Your task to perform on an android device: turn off sleep mode Image 0: 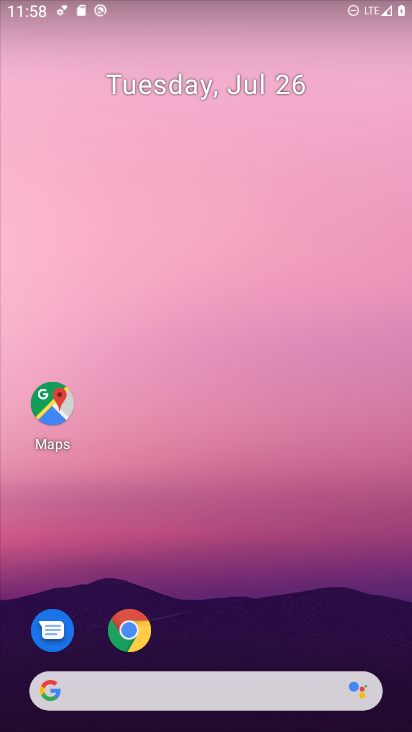
Step 0: drag from (379, 641) to (336, 255)
Your task to perform on an android device: turn off sleep mode Image 1: 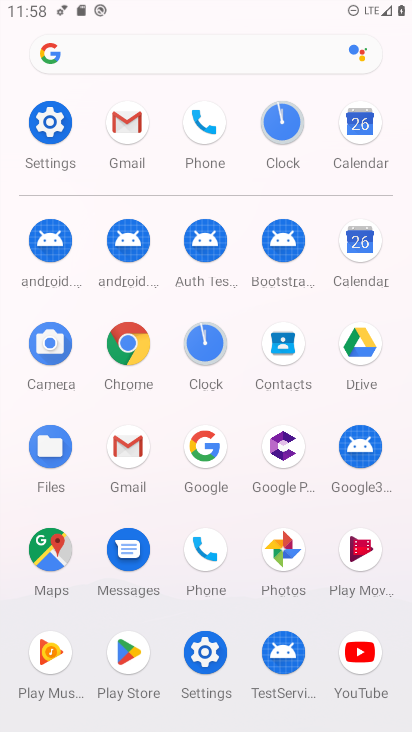
Step 1: click (203, 653)
Your task to perform on an android device: turn off sleep mode Image 2: 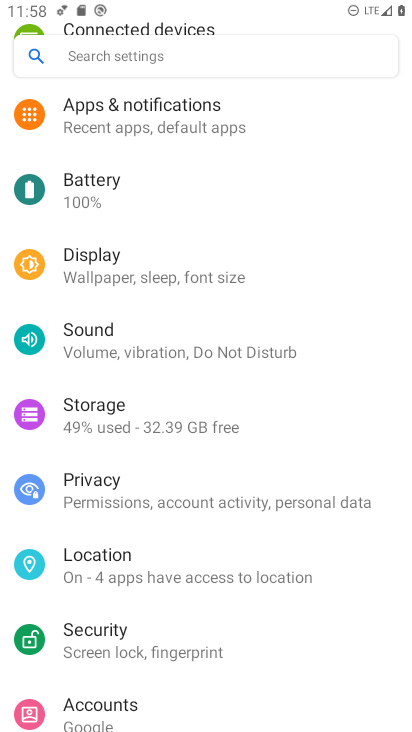
Step 2: click (127, 279)
Your task to perform on an android device: turn off sleep mode Image 3: 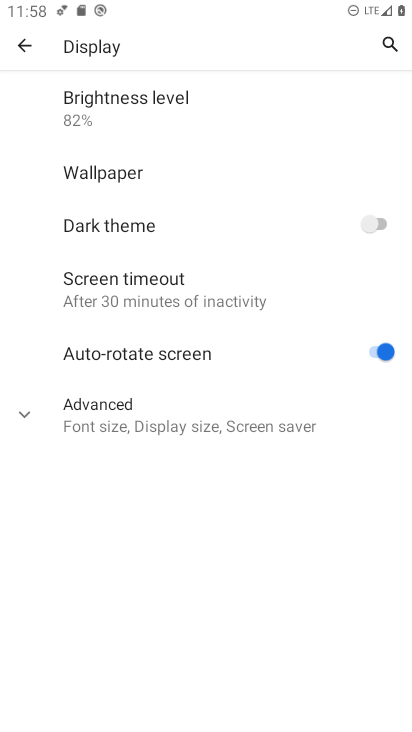
Step 3: click (28, 414)
Your task to perform on an android device: turn off sleep mode Image 4: 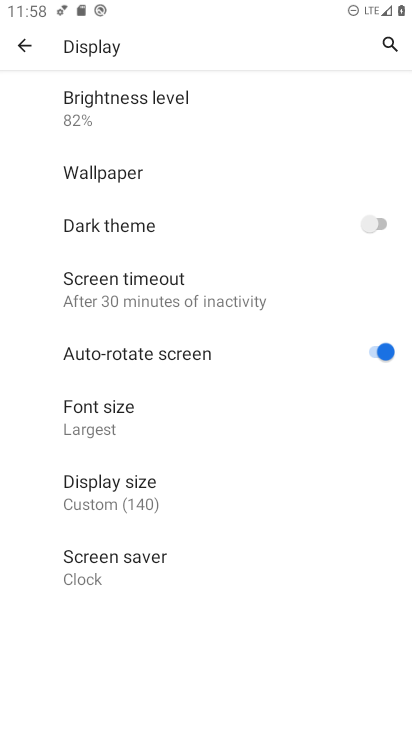
Step 4: task complete